Your task to perform on an android device: Open wifi settings Image 0: 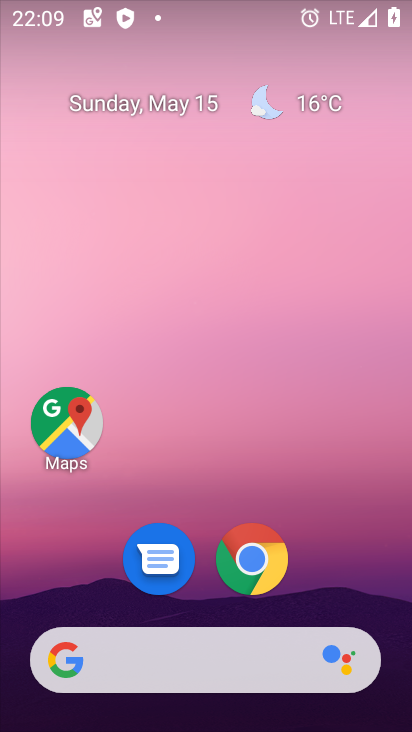
Step 0: drag from (283, 466) to (200, 53)
Your task to perform on an android device: Open wifi settings Image 1: 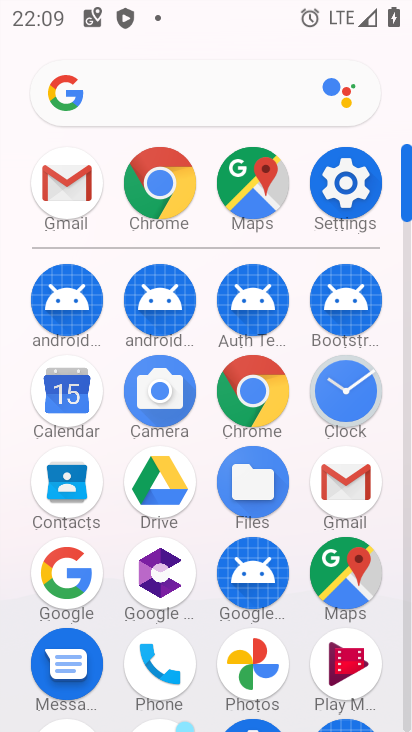
Step 1: click (346, 190)
Your task to perform on an android device: Open wifi settings Image 2: 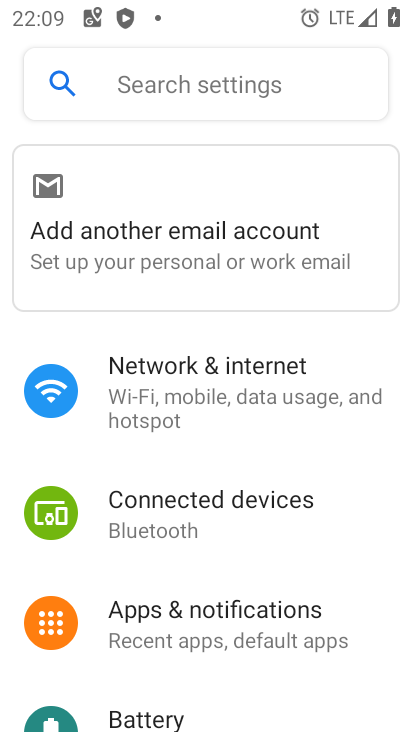
Step 2: click (176, 370)
Your task to perform on an android device: Open wifi settings Image 3: 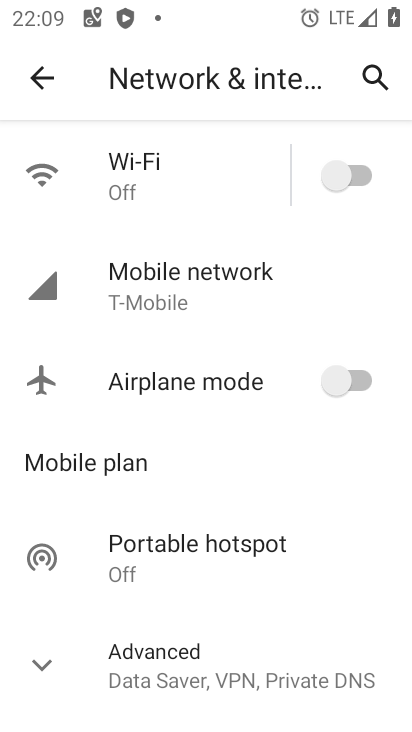
Step 3: click (142, 165)
Your task to perform on an android device: Open wifi settings Image 4: 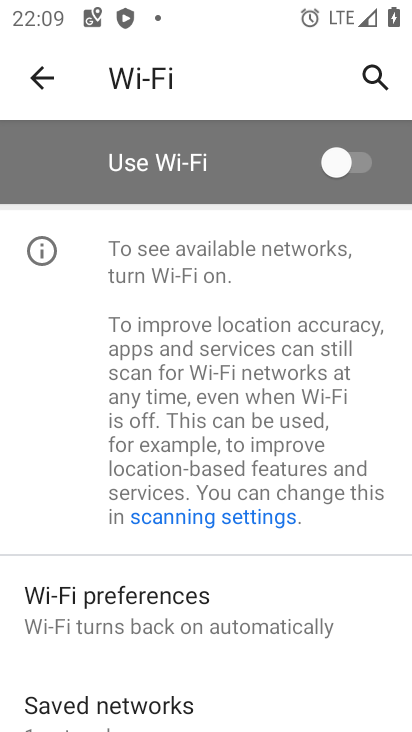
Step 4: task complete